Your task to perform on an android device: turn on location history Image 0: 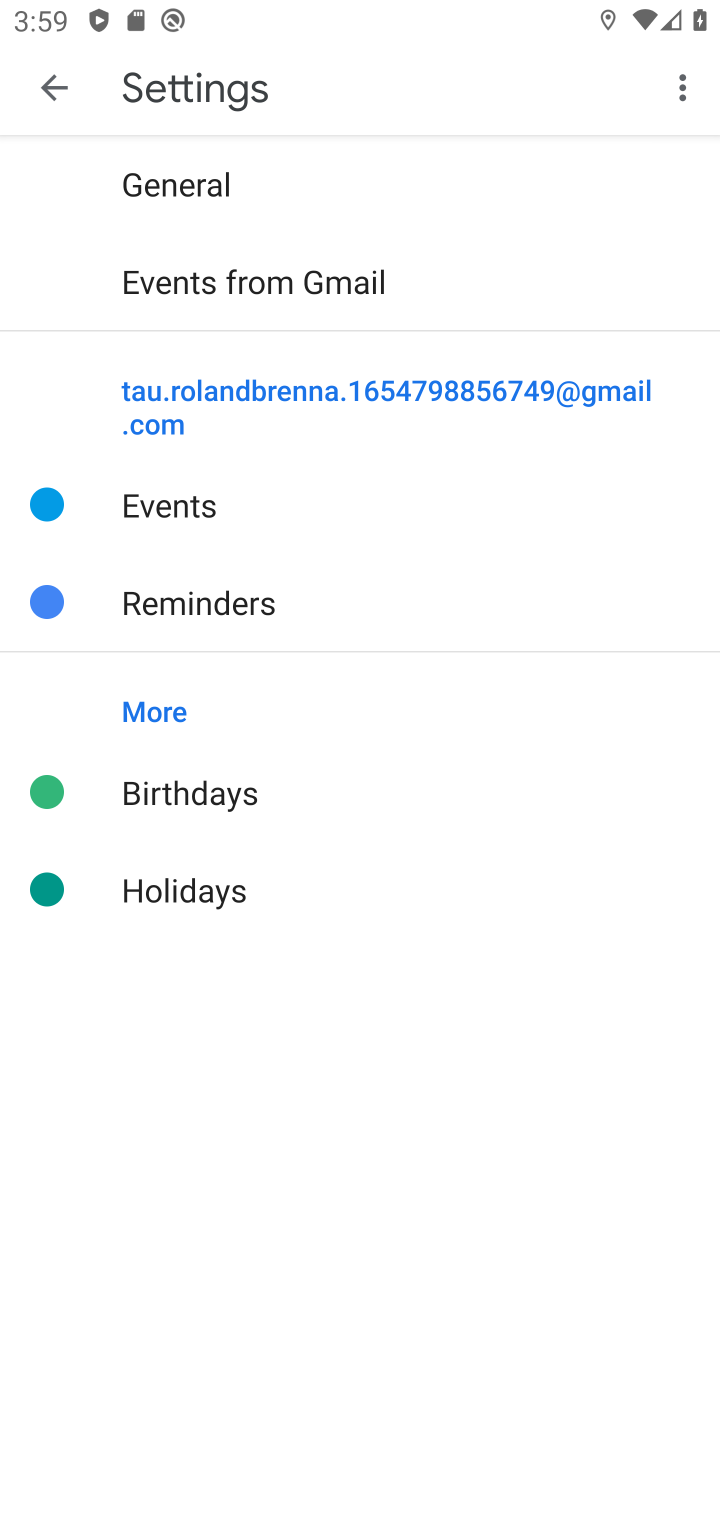
Step 0: press back button
Your task to perform on an android device: turn on location history Image 1: 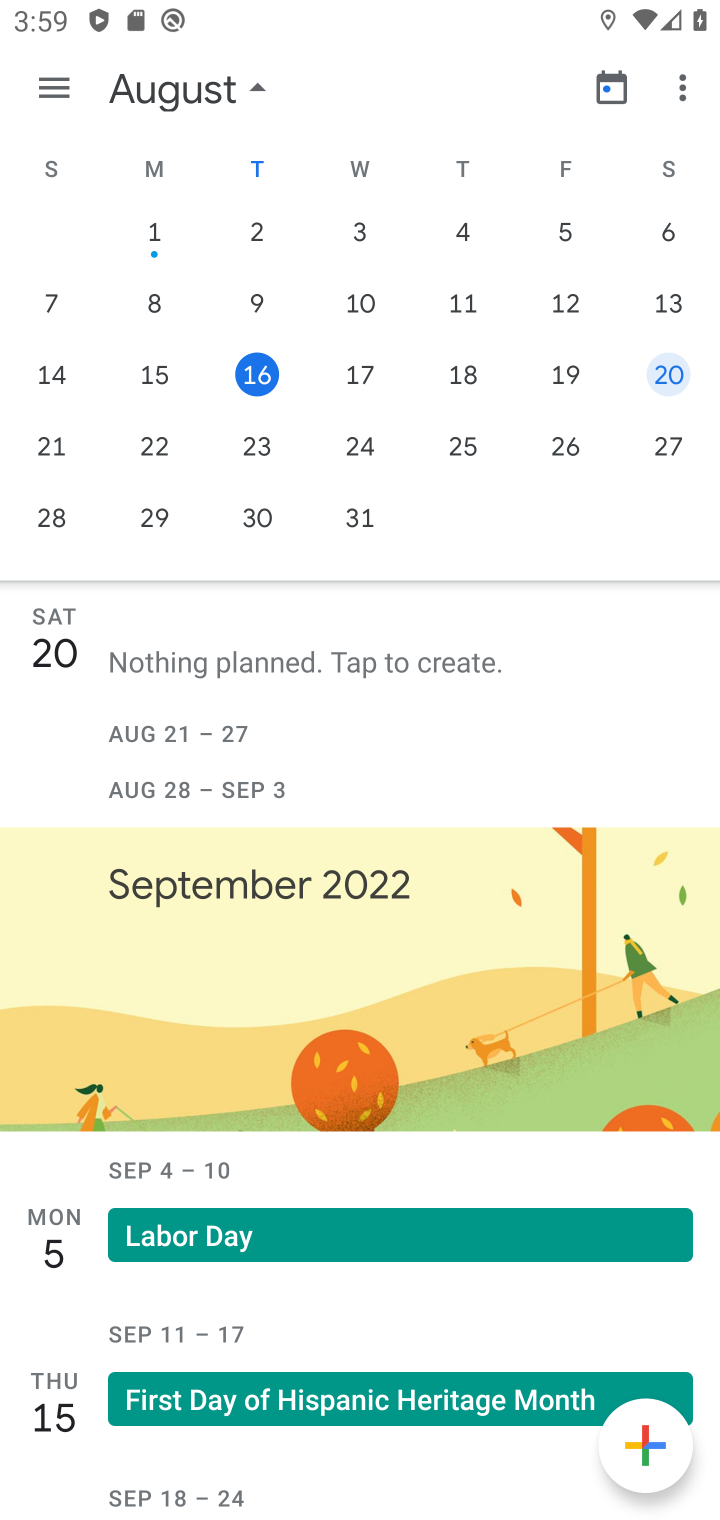
Step 1: press back button
Your task to perform on an android device: turn on location history Image 2: 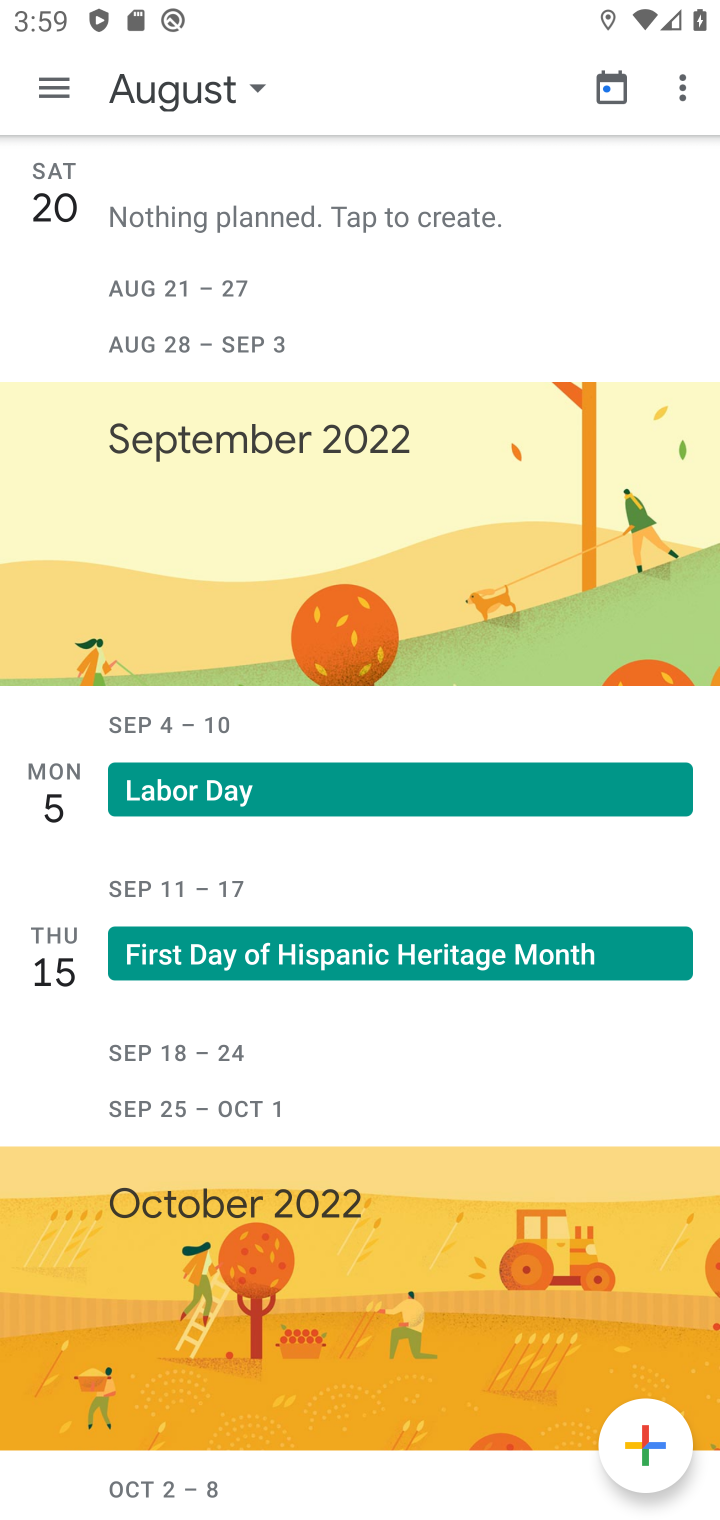
Step 2: press back button
Your task to perform on an android device: turn on location history Image 3: 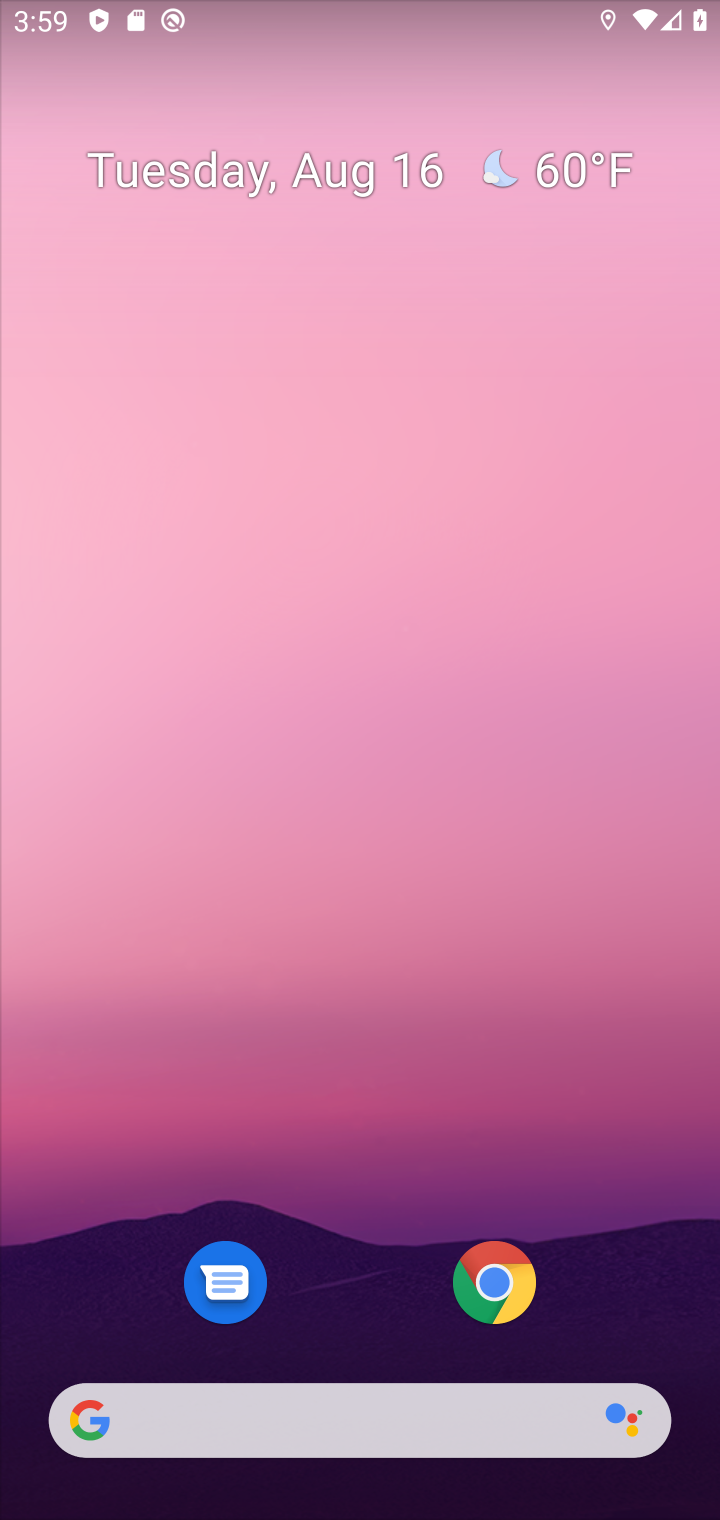
Step 3: drag from (307, 1298) to (371, 54)
Your task to perform on an android device: turn on location history Image 4: 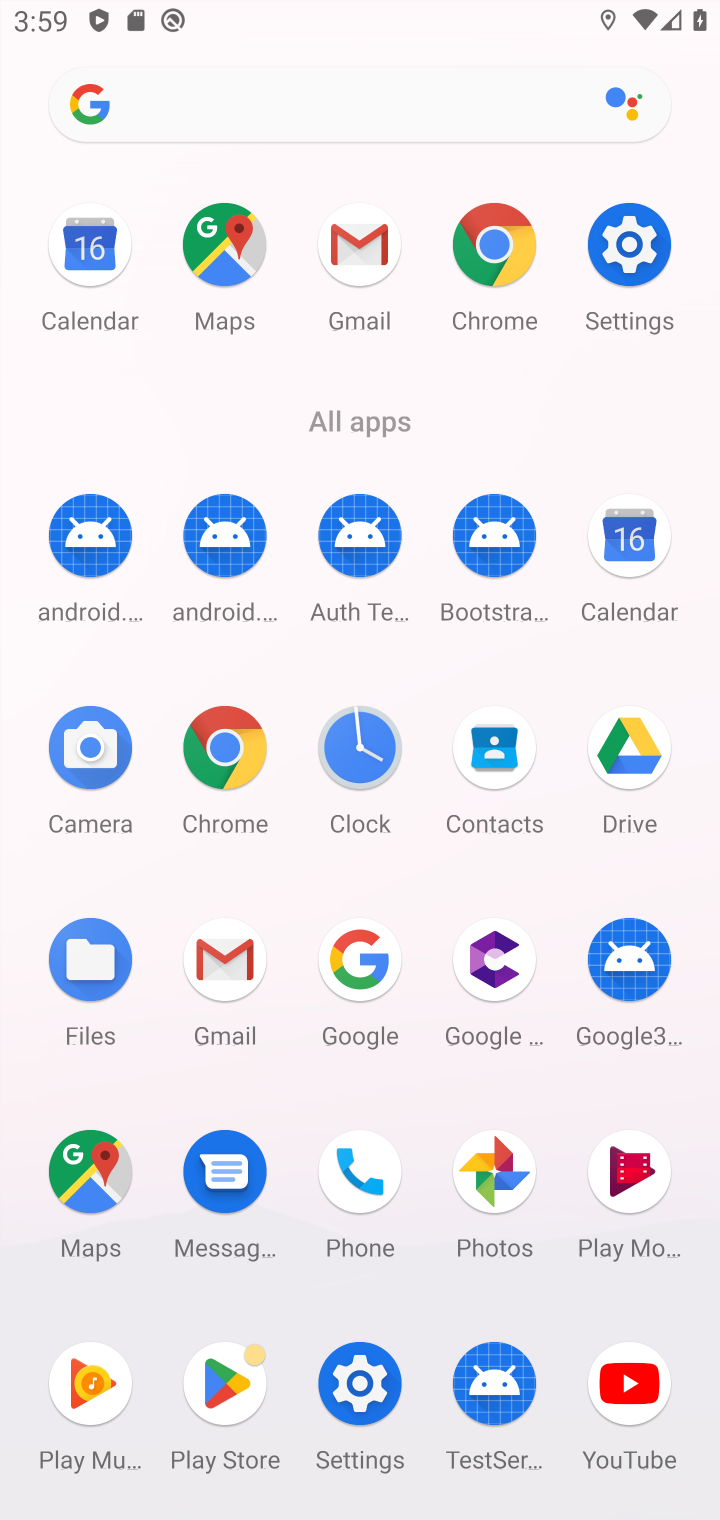
Step 4: click (646, 237)
Your task to perform on an android device: turn on location history Image 5: 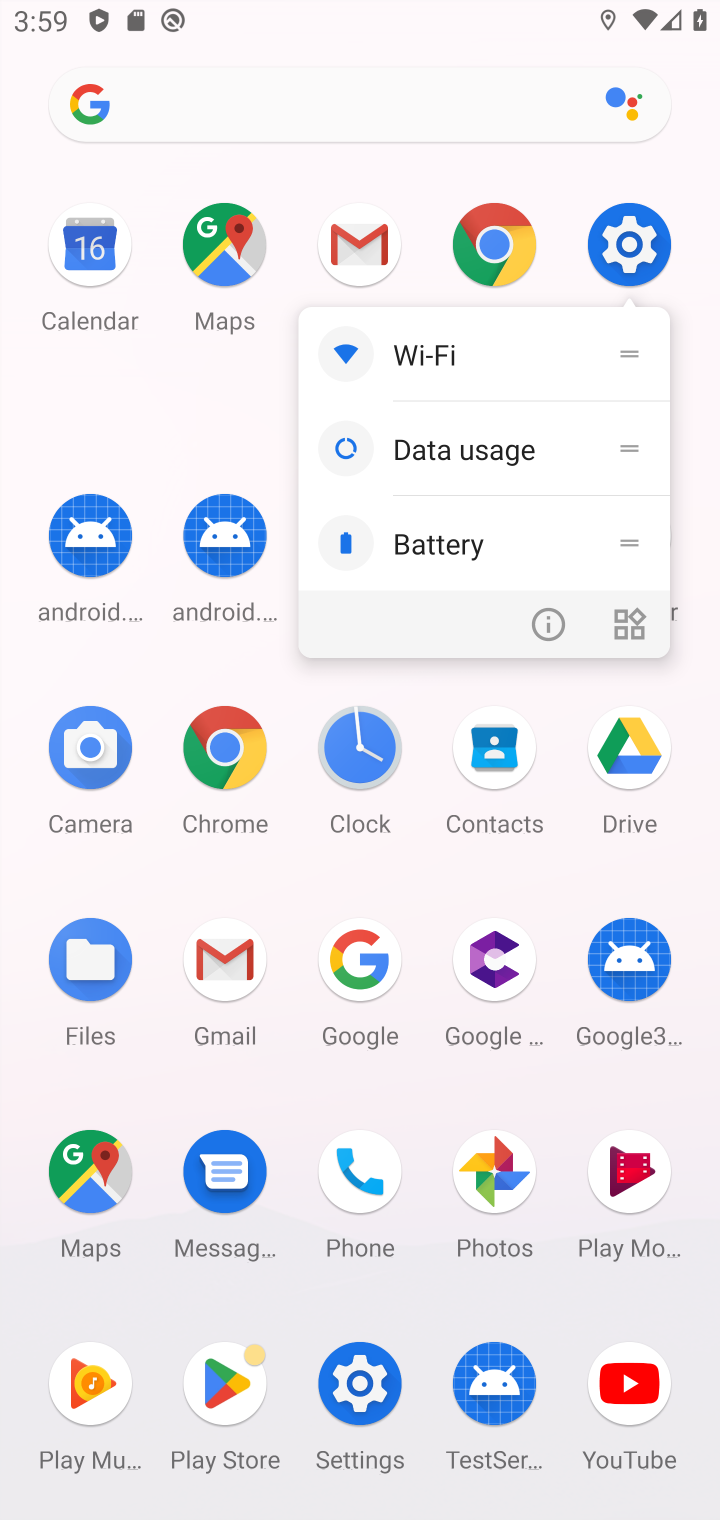
Step 5: click (637, 237)
Your task to perform on an android device: turn on location history Image 6: 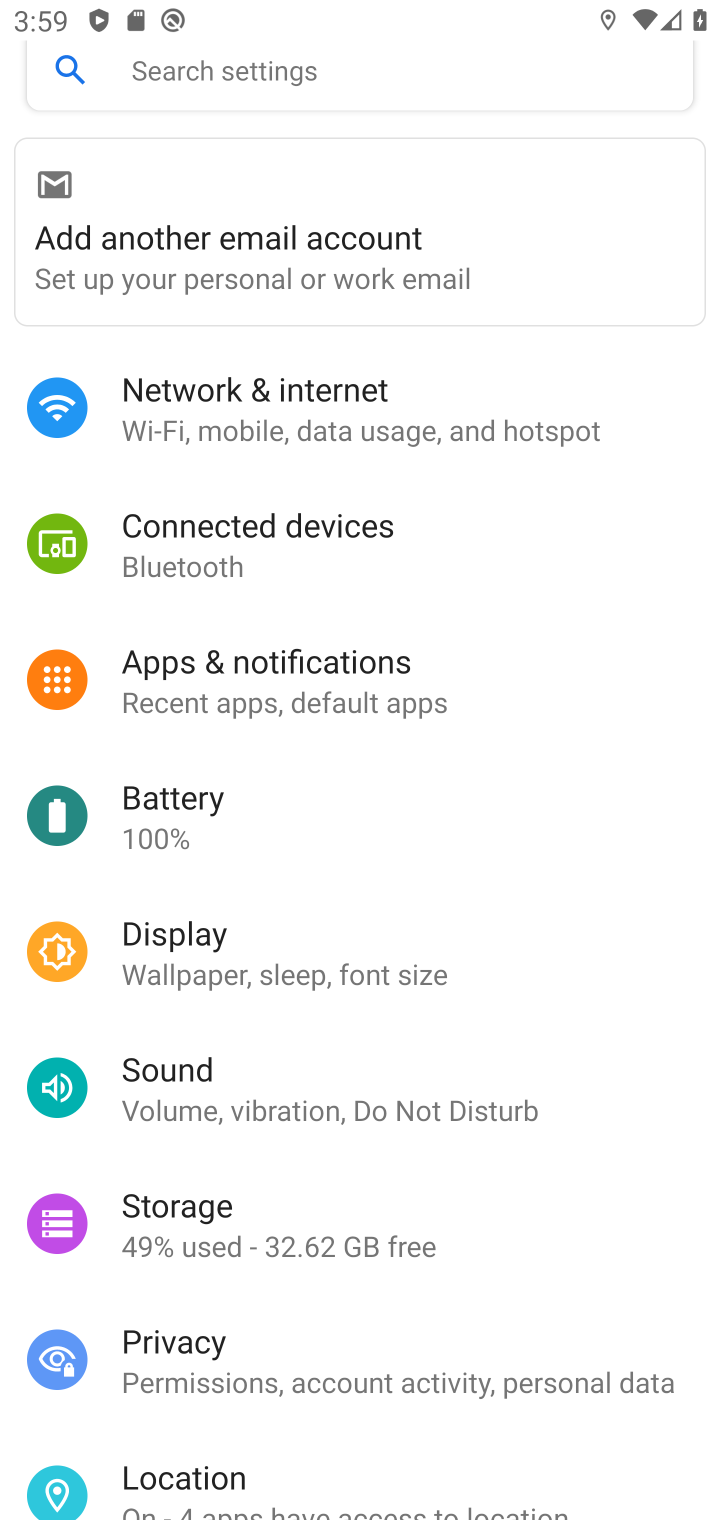
Step 6: click (246, 1479)
Your task to perform on an android device: turn on location history Image 7: 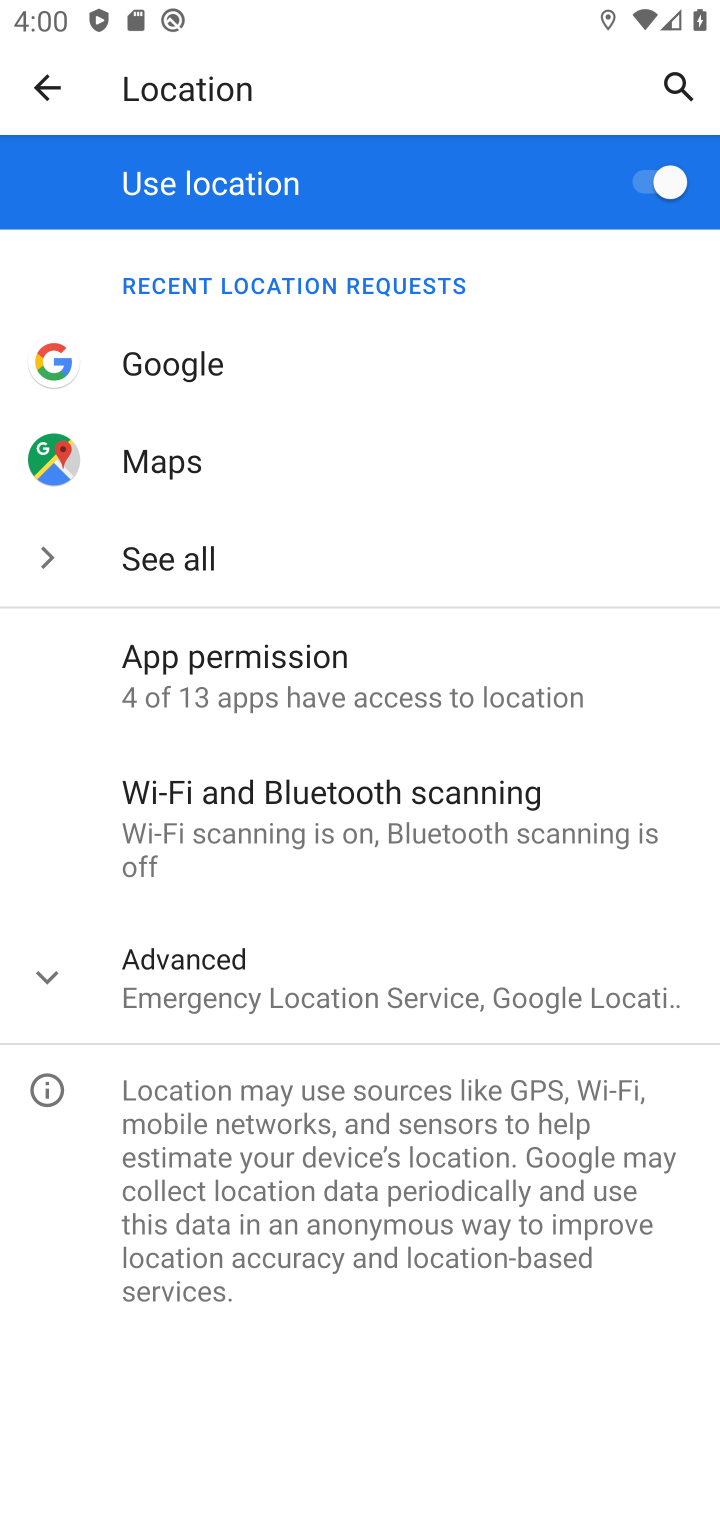
Step 7: click (249, 982)
Your task to perform on an android device: turn on location history Image 8: 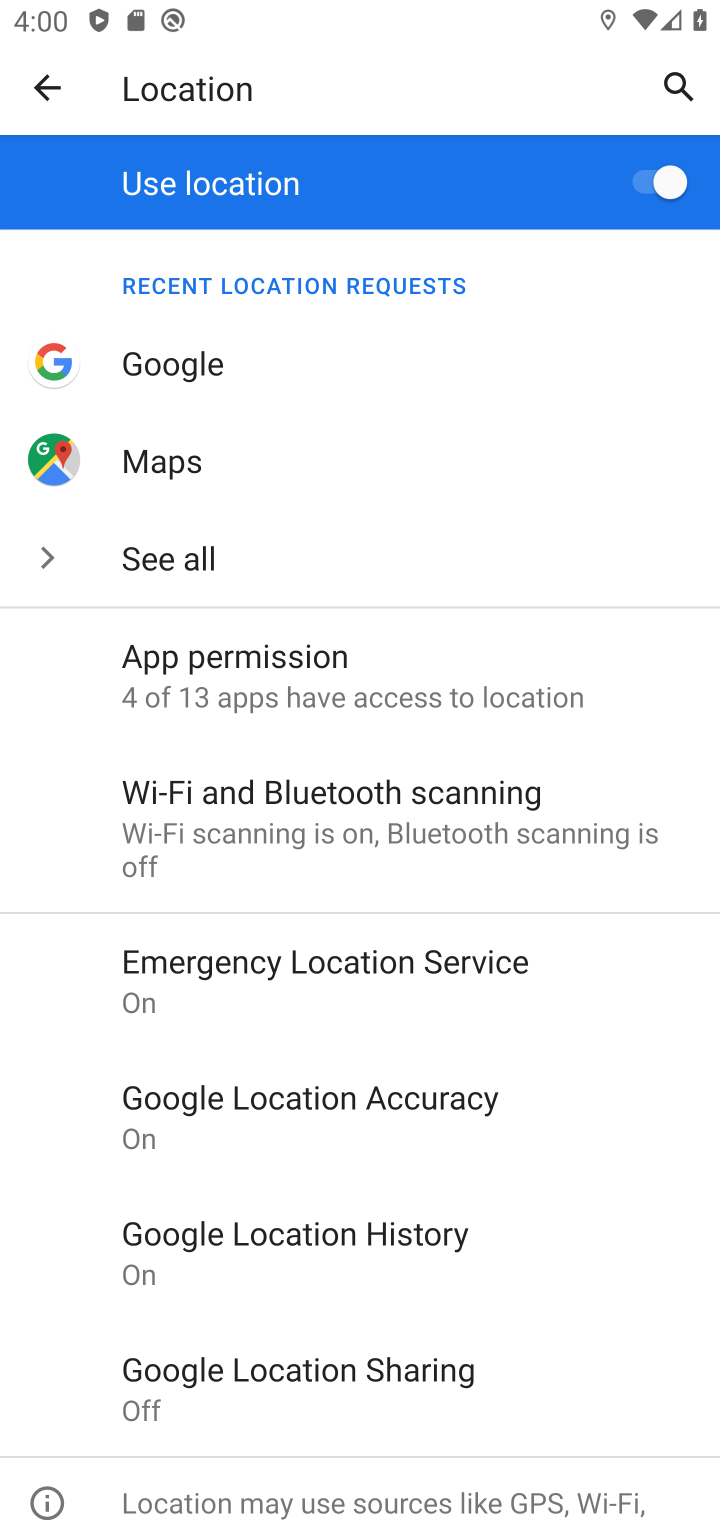
Step 8: click (279, 1218)
Your task to perform on an android device: turn on location history Image 9: 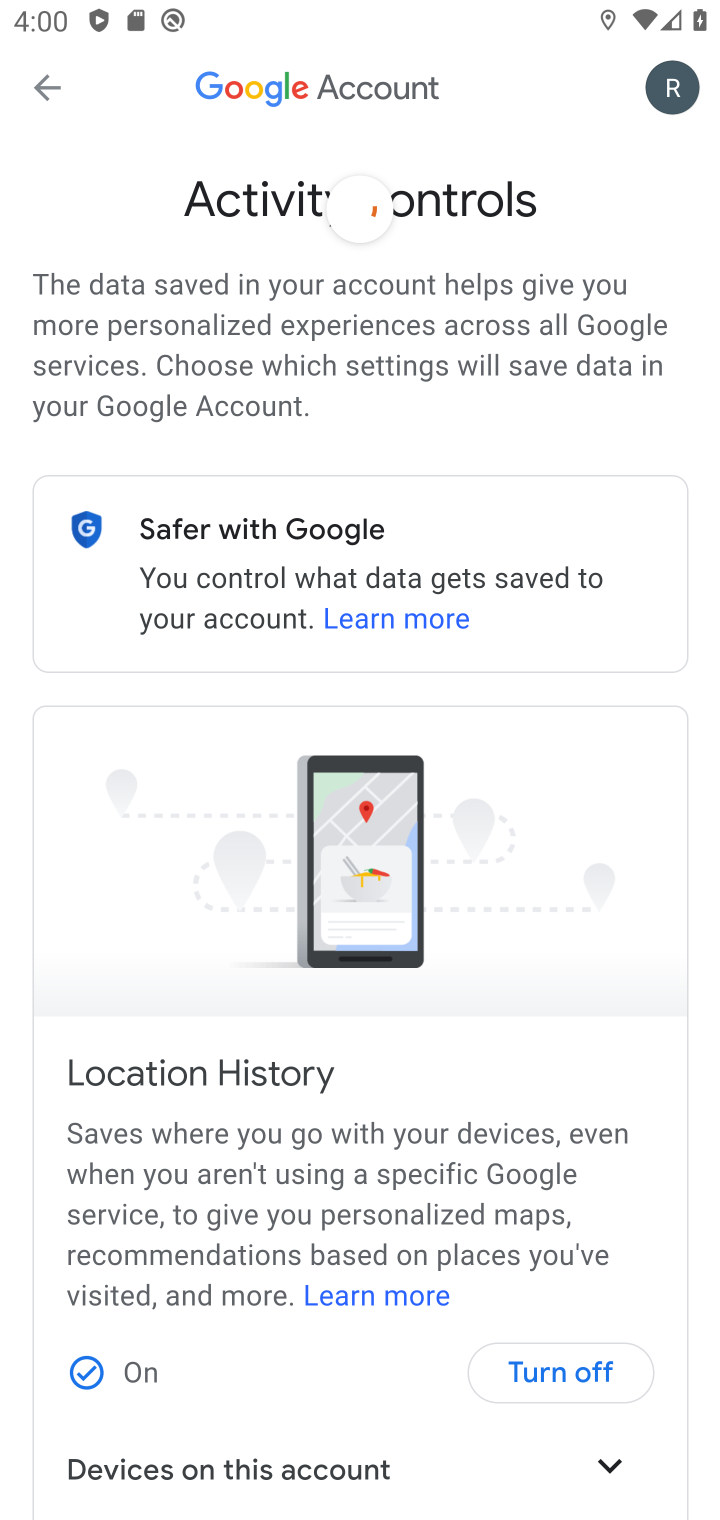
Step 9: task complete